Your task to perform on an android device: turn notification dots off Image 0: 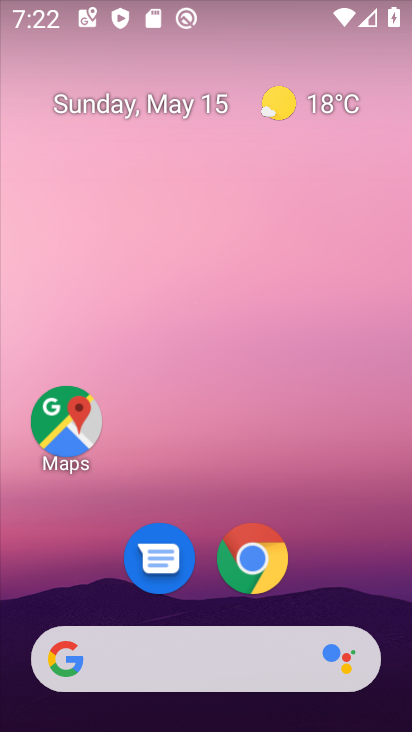
Step 0: drag from (226, 466) to (264, 6)
Your task to perform on an android device: turn notification dots off Image 1: 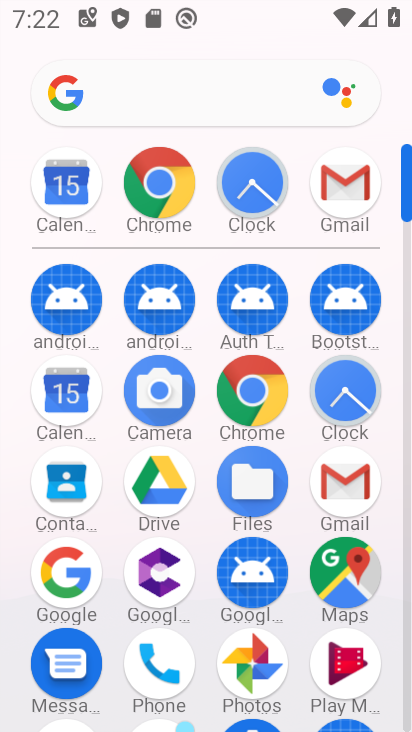
Step 1: drag from (201, 632) to (141, 307)
Your task to perform on an android device: turn notification dots off Image 2: 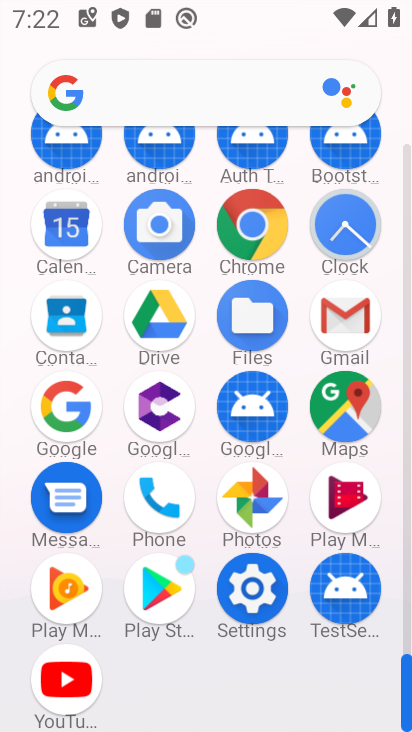
Step 2: click (258, 598)
Your task to perform on an android device: turn notification dots off Image 3: 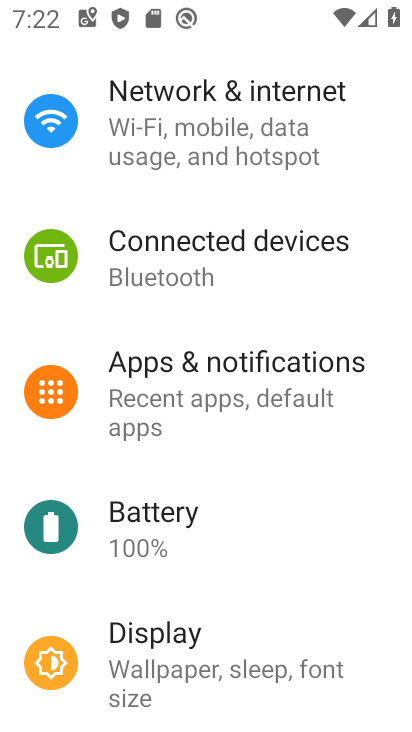
Step 3: click (233, 363)
Your task to perform on an android device: turn notification dots off Image 4: 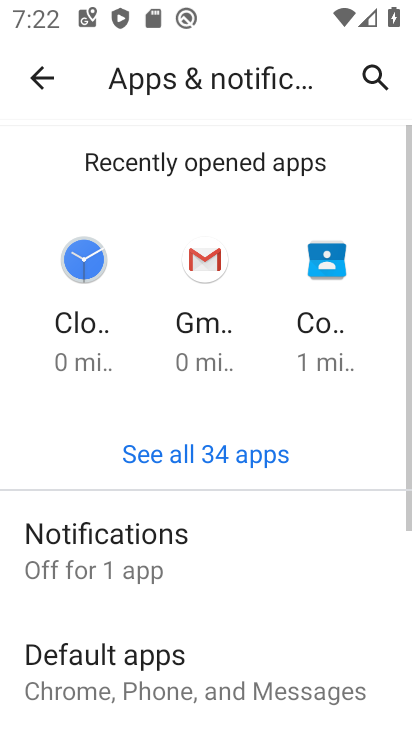
Step 4: drag from (237, 580) to (161, 253)
Your task to perform on an android device: turn notification dots off Image 5: 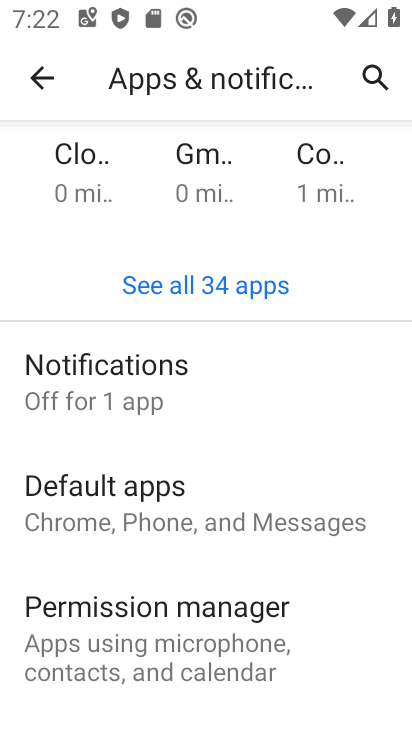
Step 5: drag from (205, 556) to (178, 326)
Your task to perform on an android device: turn notification dots off Image 6: 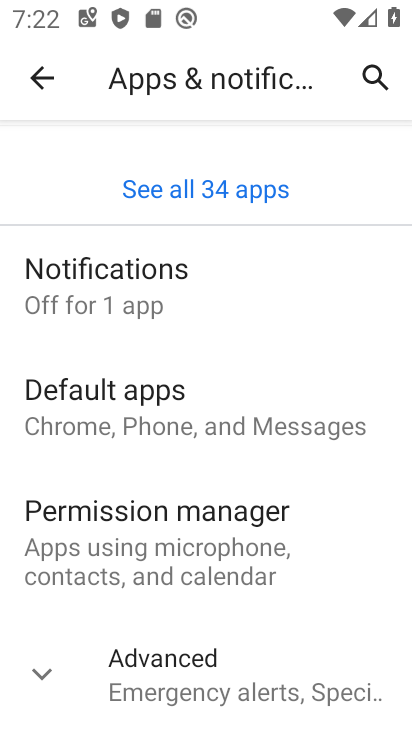
Step 6: click (143, 272)
Your task to perform on an android device: turn notification dots off Image 7: 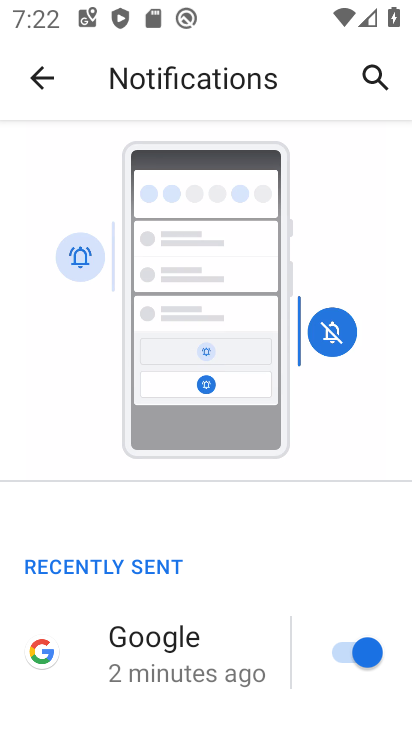
Step 7: drag from (255, 549) to (160, 74)
Your task to perform on an android device: turn notification dots off Image 8: 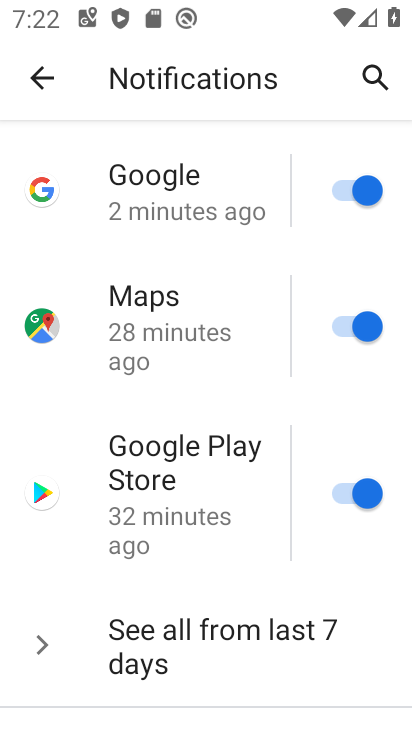
Step 8: drag from (234, 560) to (172, 254)
Your task to perform on an android device: turn notification dots off Image 9: 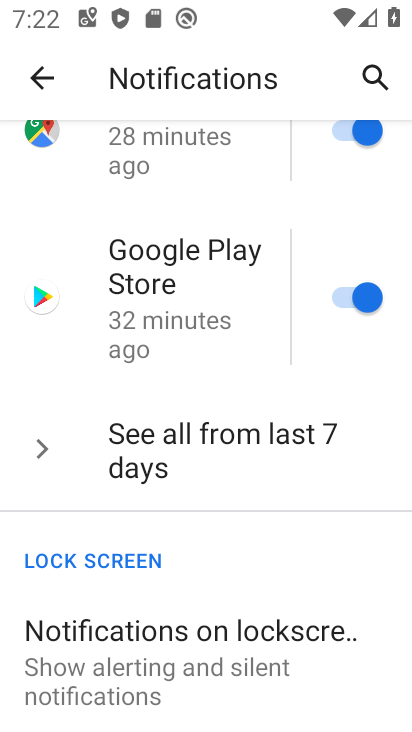
Step 9: drag from (198, 562) to (141, 205)
Your task to perform on an android device: turn notification dots off Image 10: 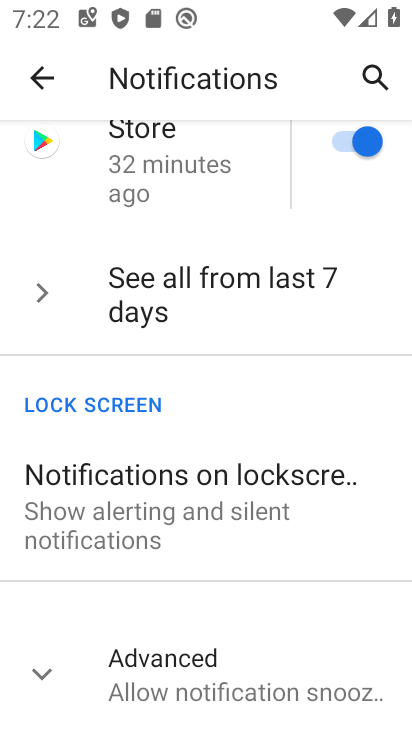
Step 10: drag from (231, 614) to (181, 308)
Your task to perform on an android device: turn notification dots off Image 11: 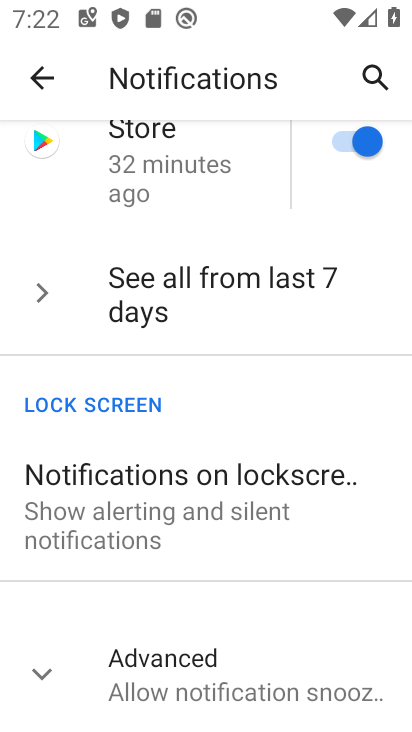
Step 11: click (35, 677)
Your task to perform on an android device: turn notification dots off Image 12: 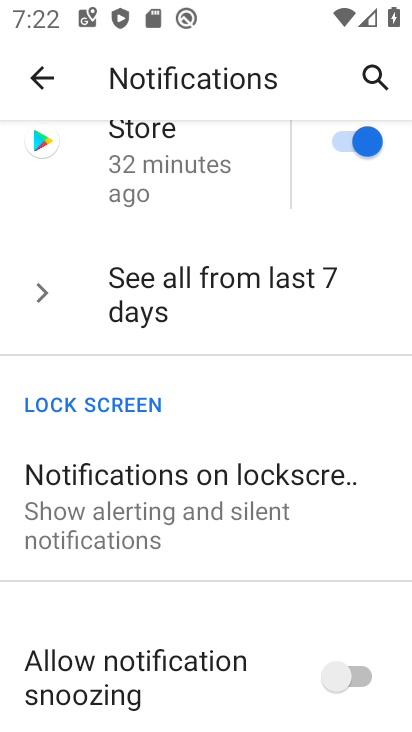
Step 12: drag from (252, 613) to (158, 142)
Your task to perform on an android device: turn notification dots off Image 13: 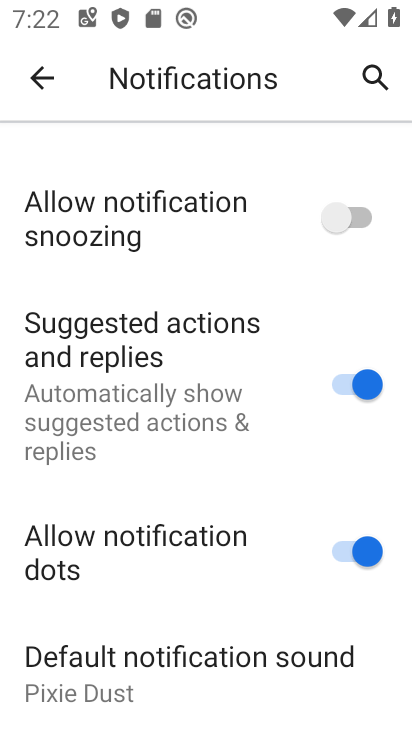
Step 13: click (361, 544)
Your task to perform on an android device: turn notification dots off Image 14: 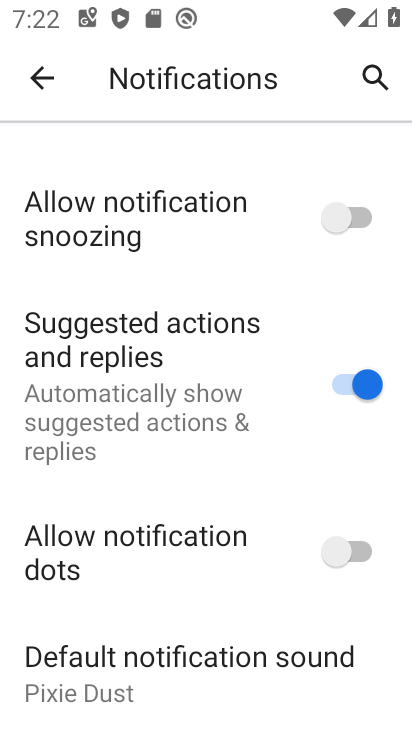
Step 14: task complete